Your task to perform on an android device: Search for Mexican restaurants on Maps Image 0: 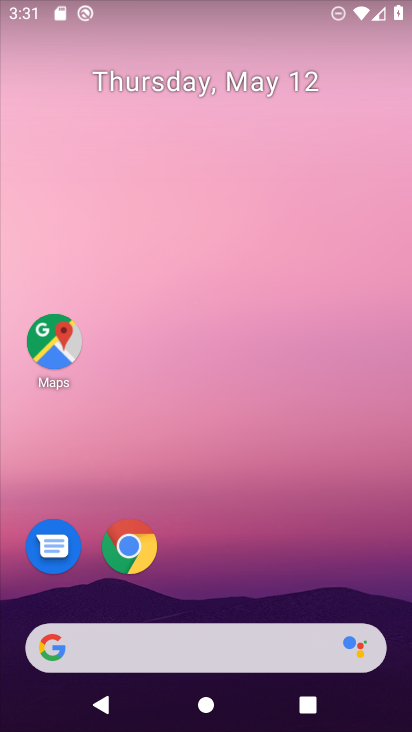
Step 0: drag from (261, 591) to (260, 208)
Your task to perform on an android device: Search for Mexican restaurants on Maps Image 1: 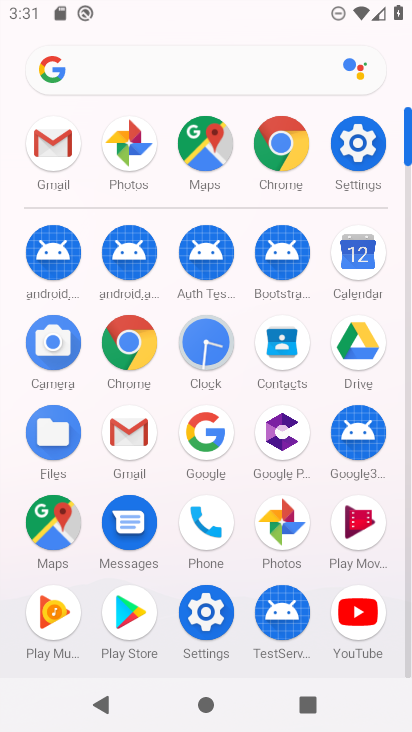
Step 1: click (41, 518)
Your task to perform on an android device: Search for Mexican restaurants on Maps Image 2: 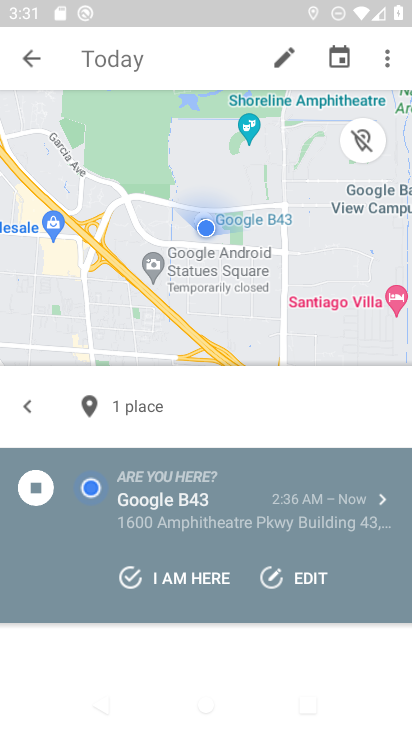
Step 2: click (34, 49)
Your task to perform on an android device: Search for Mexican restaurants on Maps Image 3: 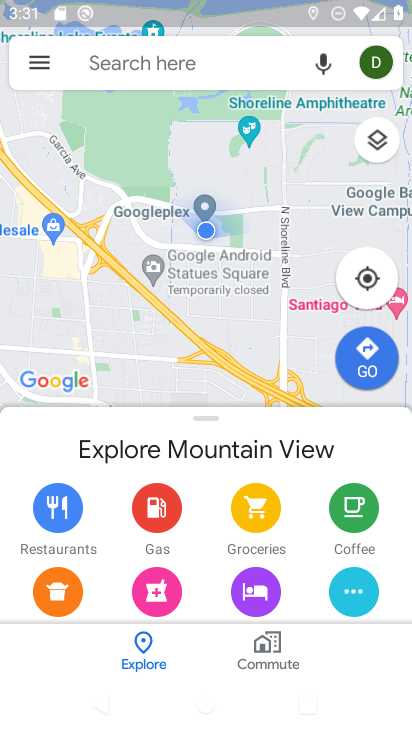
Step 3: click (197, 54)
Your task to perform on an android device: Search for Mexican restaurants on Maps Image 4: 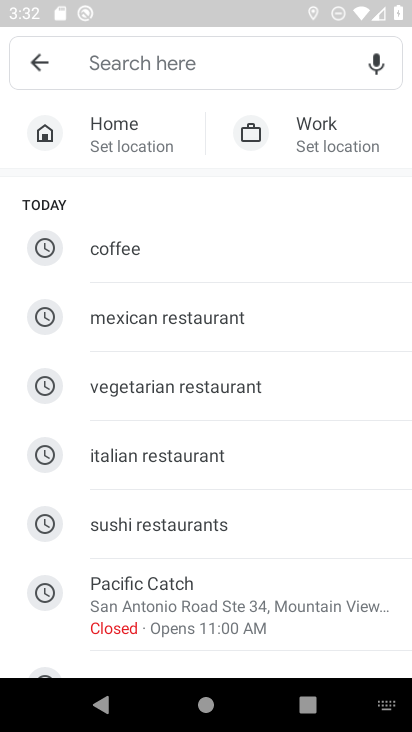
Step 4: click (201, 310)
Your task to perform on an android device: Search for Mexican restaurants on Maps Image 5: 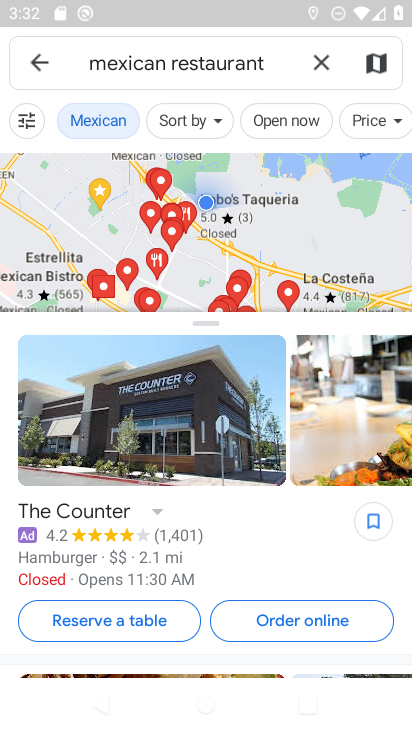
Step 5: task complete